Your task to perform on an android device: check out phone information Image 0: 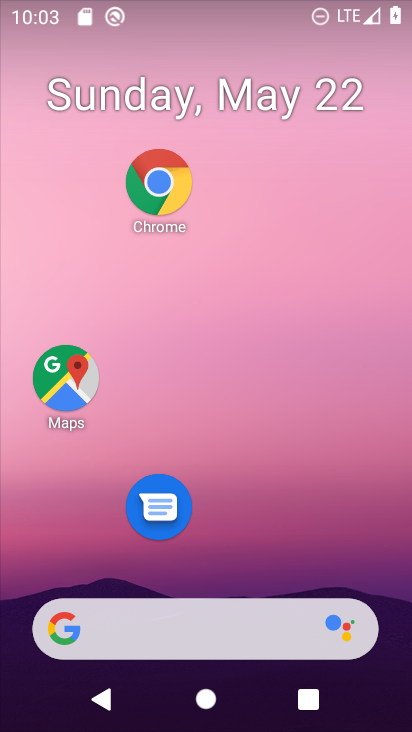
Step 0: drag from (153, 705) to (278, 1)
Your task to perform on an android device: check out phone information Image 1: 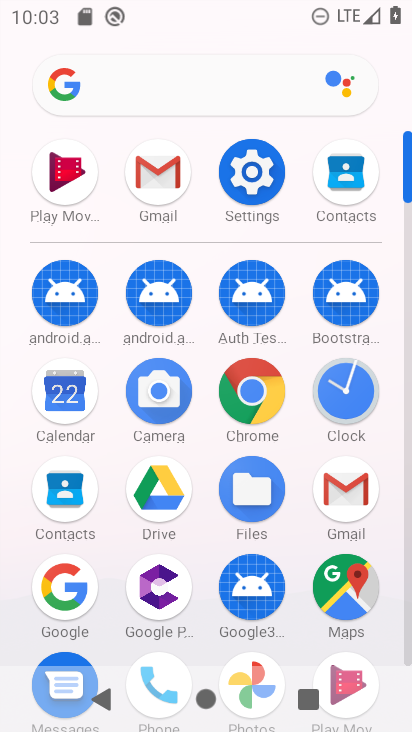
Step 1: click (246, 171)
Your task to perform on an android device: check out phone information Image 2: 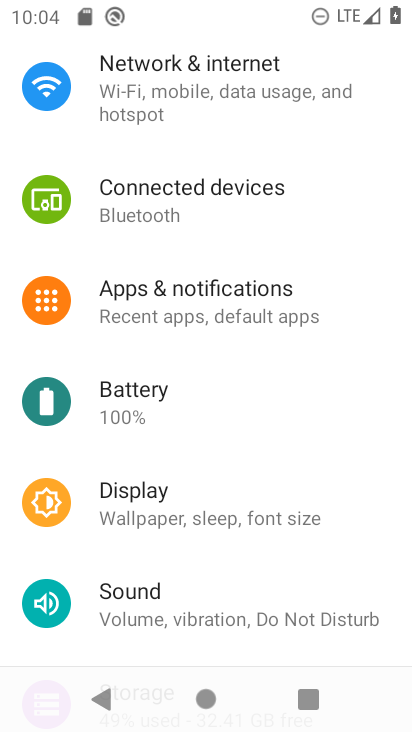
Step 2: drag from (221, 515) to (274, 199)
Your task to perform on an android device: check out phone information Image 3: 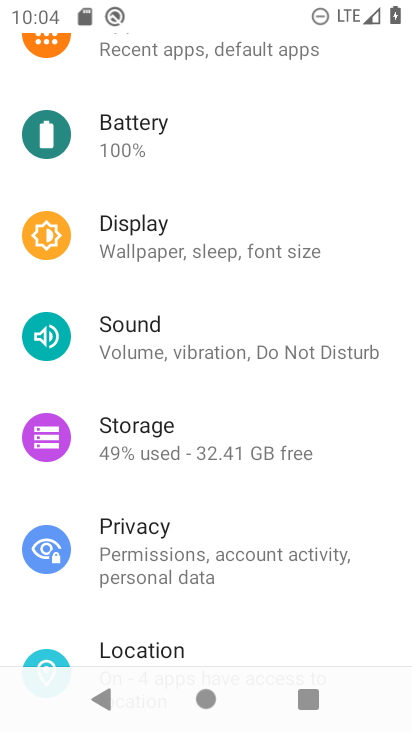
Step 3: drag from (198, 666) to (126, 172)
Your task to perform on an android device: check out phone information Image 4: 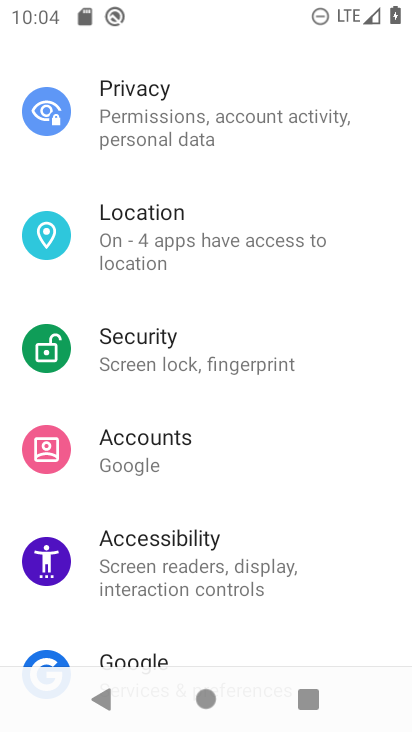
Step 4: drag from (264, 577) to (287, 79)
Your task to perform on an android device: check out phone information Image 5: 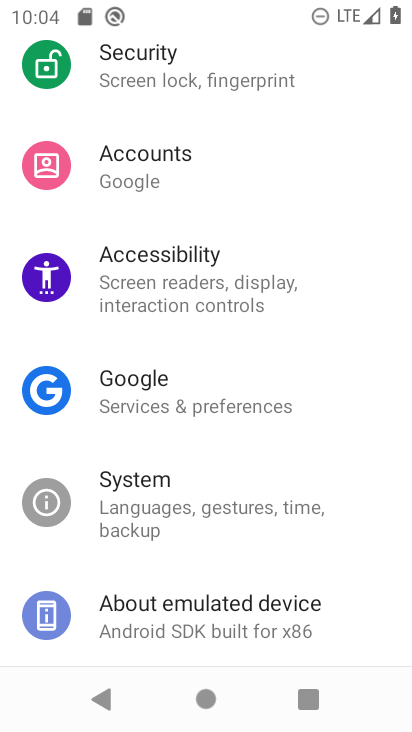
Step 5: drag from (223, 544) to (201, 27)
Your task to perform on an android device: check out phone information Image 6: 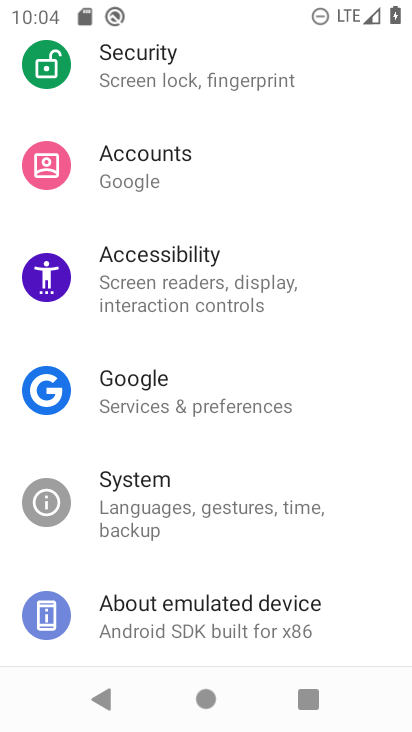
Step 6: drag from (248, 518) to (201, 8)
Your task to perform on an android device: check out phone information Image 7: 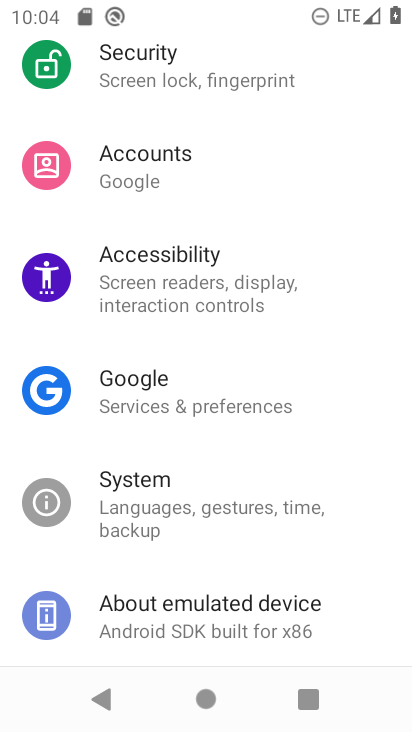
Step 7: drag from (279, 579) to (189, 55)
Your task to perform on an android device: check out phone information Image 8: 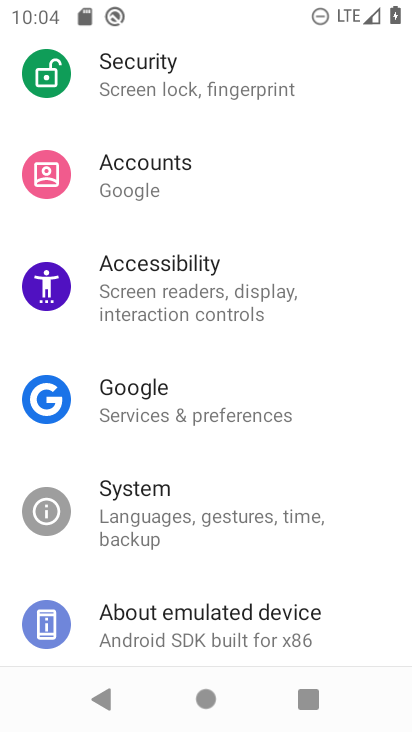
Step 8: drag from (293, 516) to (276, 55)
Your task to perform on an android device: check out phone information Image 9: 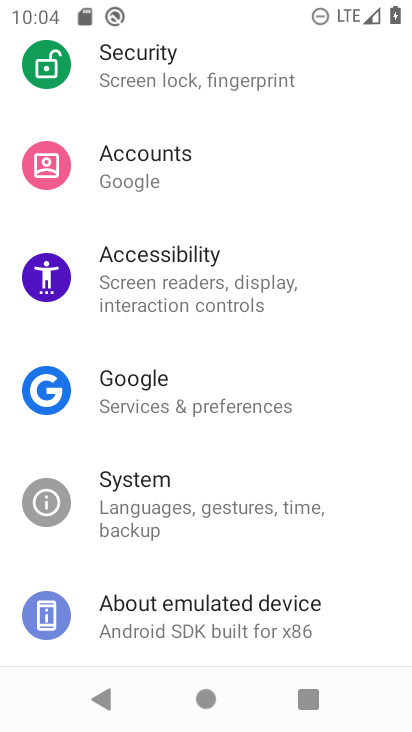
Step 9: click (287, 615)
Your task to perform on an android device: check out phone information Image 10: 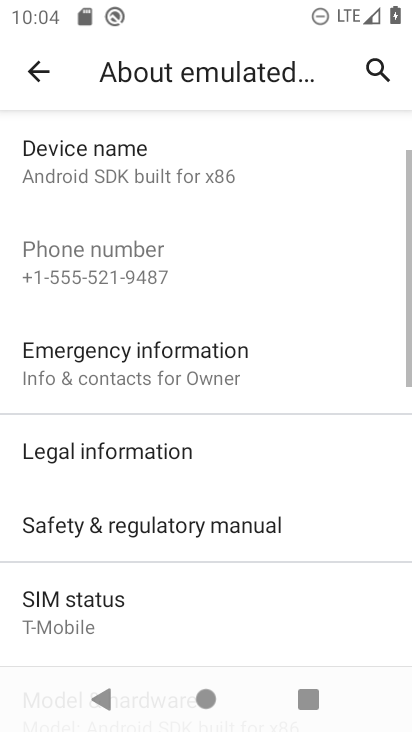
Step 10: task complete